Your task to perform on an android device: turn notification dots on Image 0: 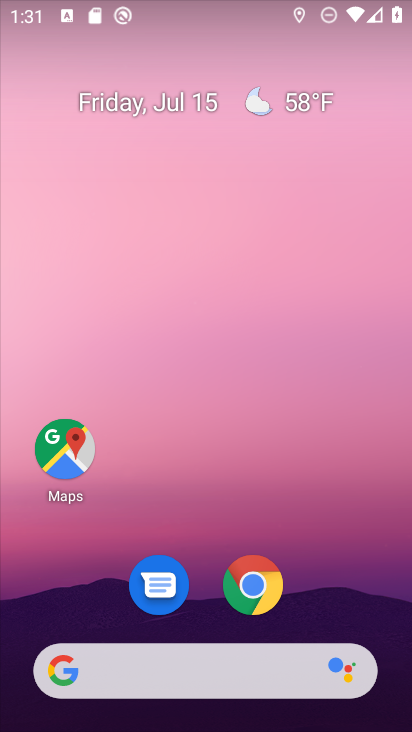
Step 0: drag from (217, 464) to (263, 17)
Your task to perform on an android device: turn notification dots on Image 1: 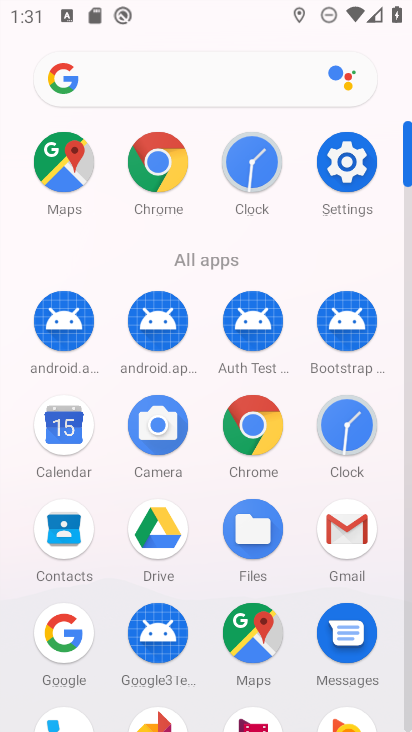
Step 1: click (344, 160)
Your task to perform on an android device: turn notification dots on Image 2: 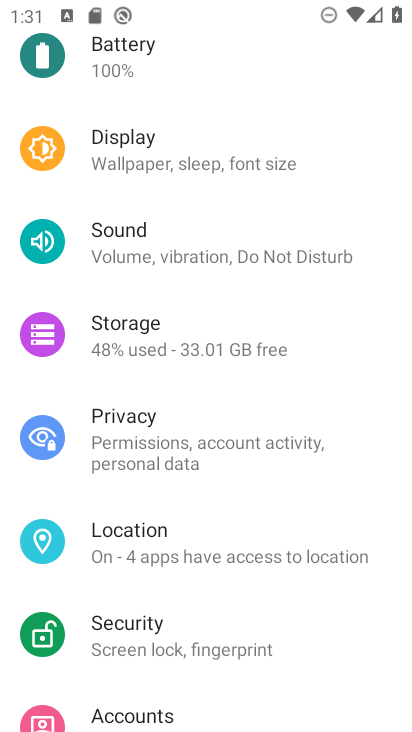
Step 2: drag from (252, 203) to (242, 488)
Your task to perform on an android device: turn notification dots on Image 3: 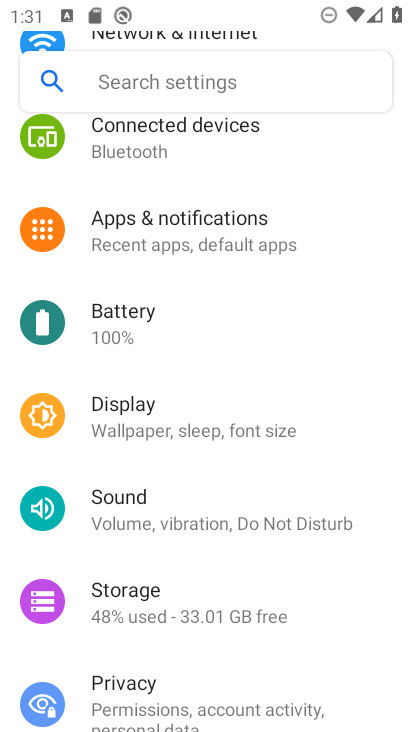
Step 3: click (248, 237)
Your task to perform on an android device: turn notification dots on Image 4: 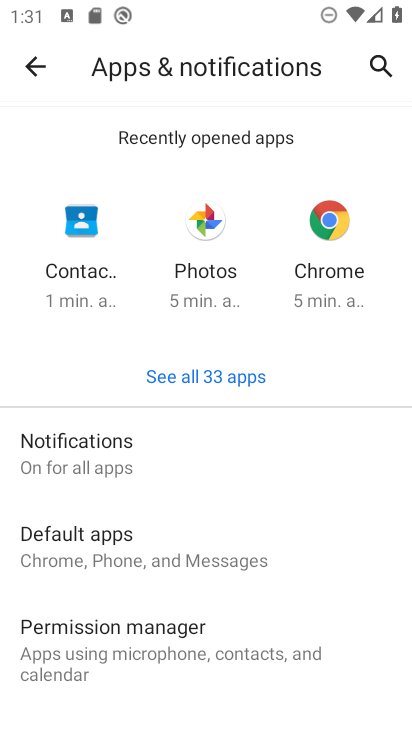
Step 4: click (108, 471)
Your task to perform on an android device: turn notification dots on Image 5: 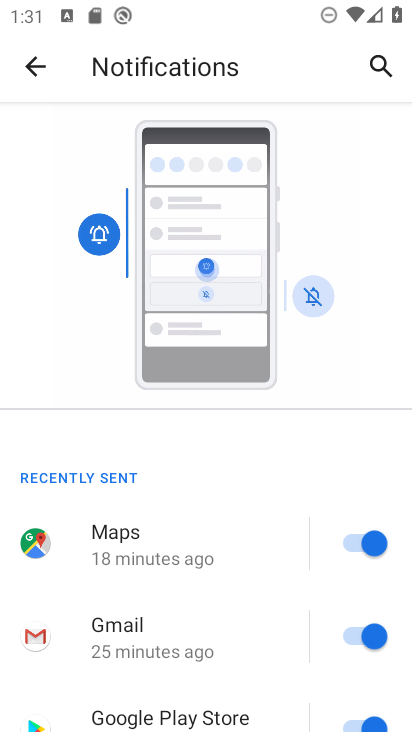
Step 5: drag from (203, 551) to (256, 210)
Your task to perform on an android device: turn notification dots on Image 6: 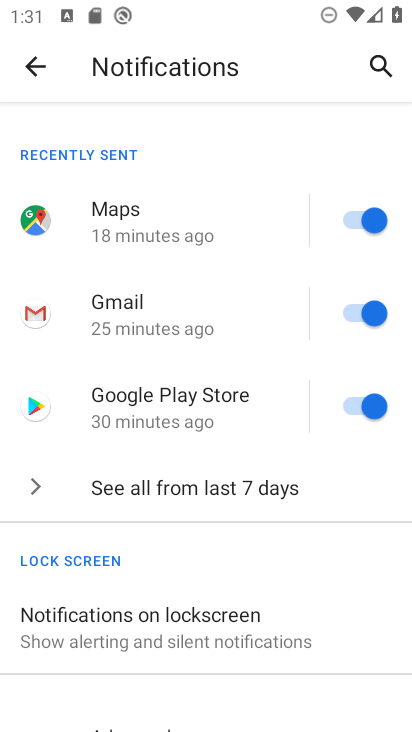
Step 6: drag from (203, 534) to (206, 236)
Your task to perform on an android device: turn notification dots on Image 7: 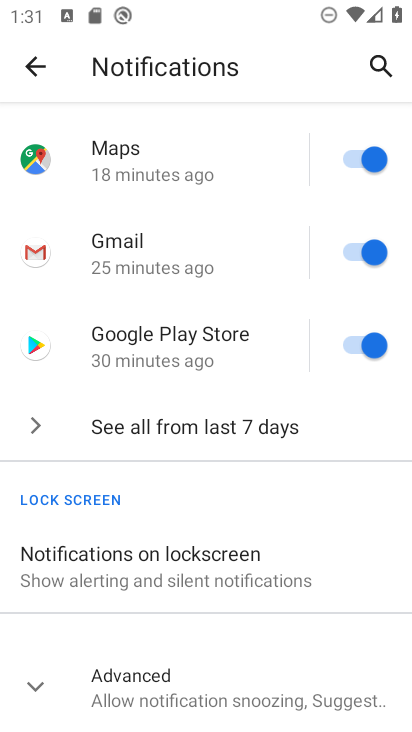
Step 7: click (36, 687)
Your task to perform on an android device: turn notification dots on Image 8: 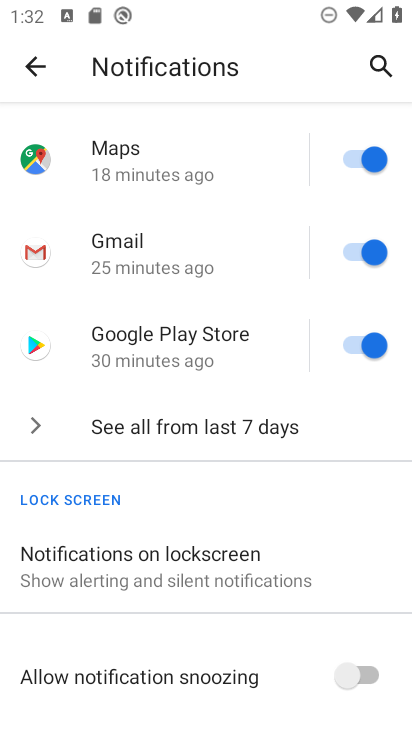
Step 8: task complete